Your task to perform on an android device: Open eBay Image 0: 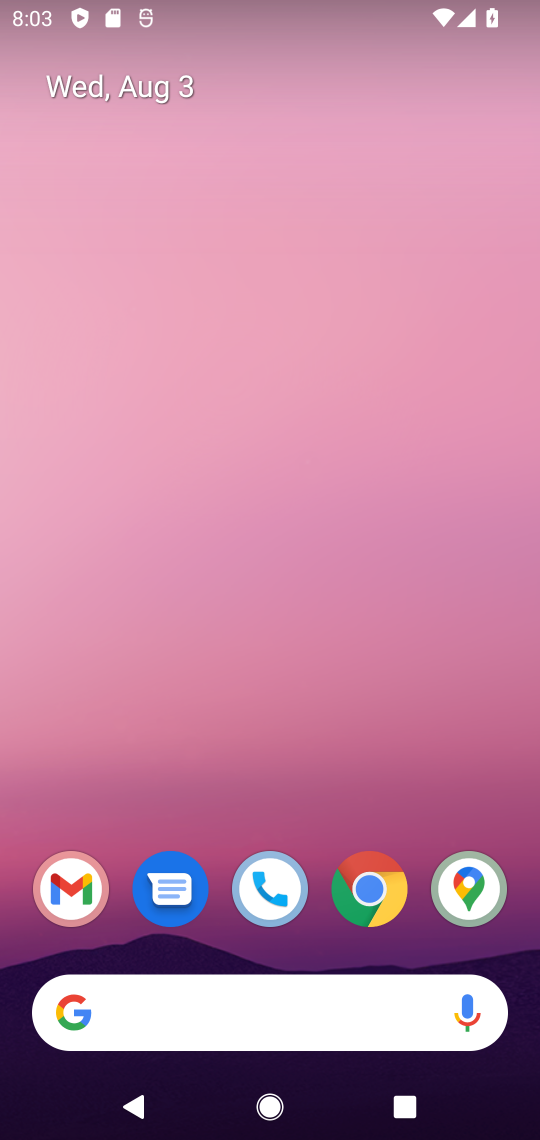
Step 0: click (374, 896)
Your task to perform on an android device: Open eBay Image 1: 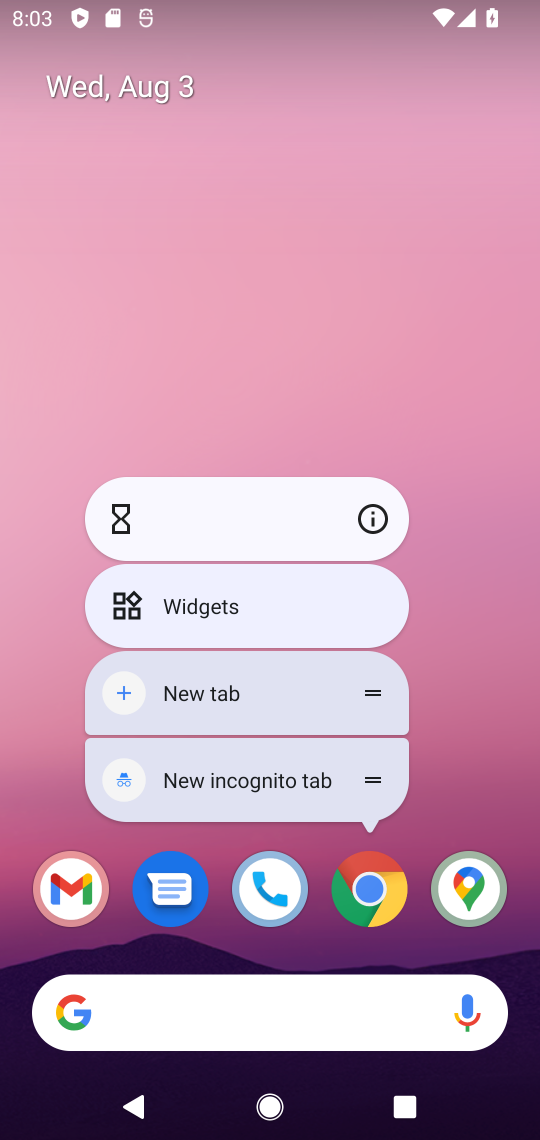
Step 1: click (359, 904)
Your task to perform on an android device: Open eBay Image 2: 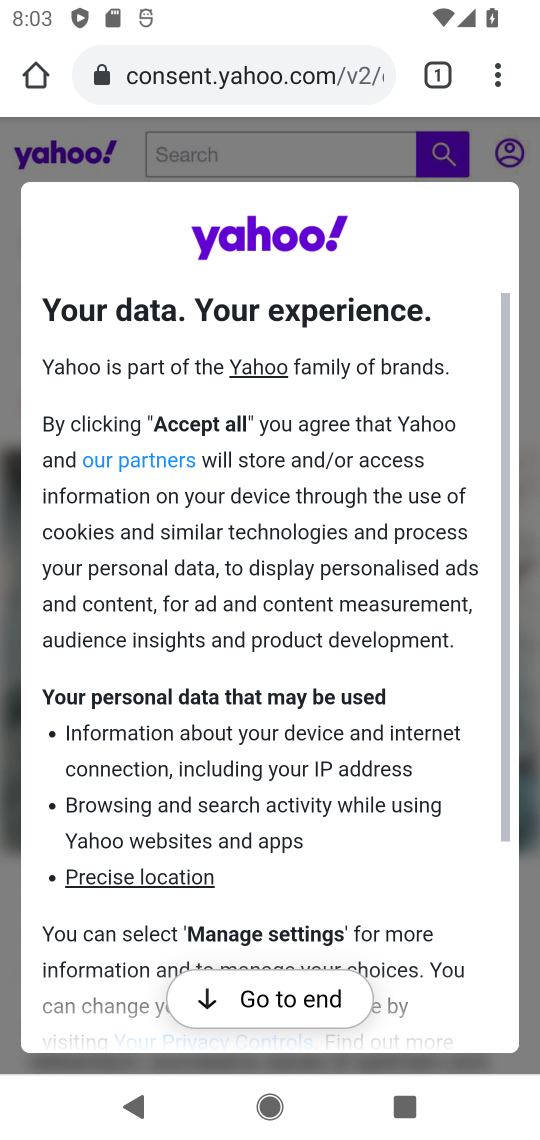
Step 2: click (272, 78)
Your task to perform on an android device: Open eBay Image 3: 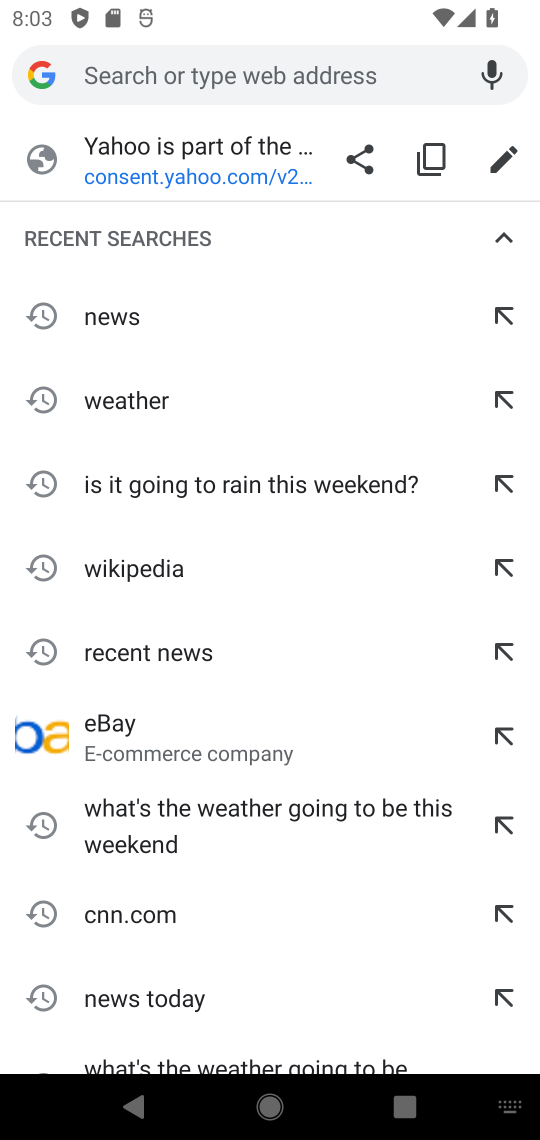
Step 3: type "ebay"
Your task to perform on an android device: Open eBay Image 4: 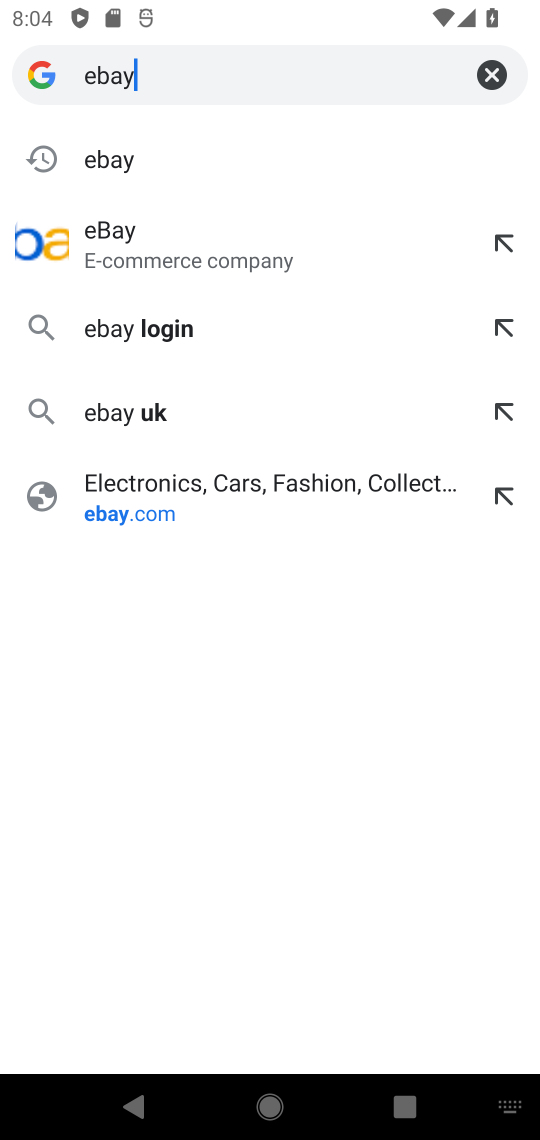
Step 4: click (189, 161)
Your task to perform on an android device: Open eBay Image 5: 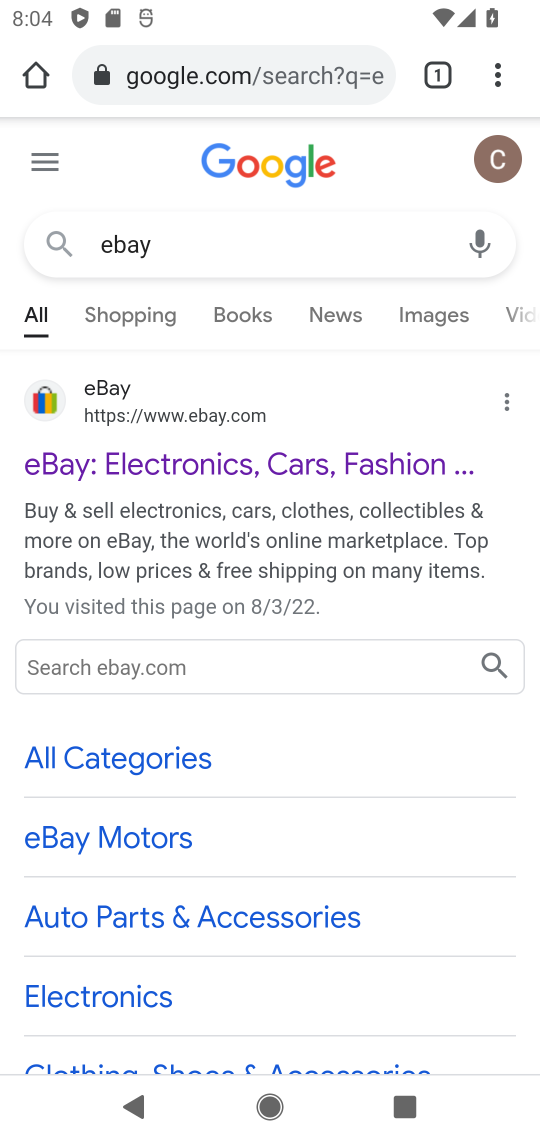
Step 5: click (130, 462)
Your task to perform on an android device: Open eBay Image 6: 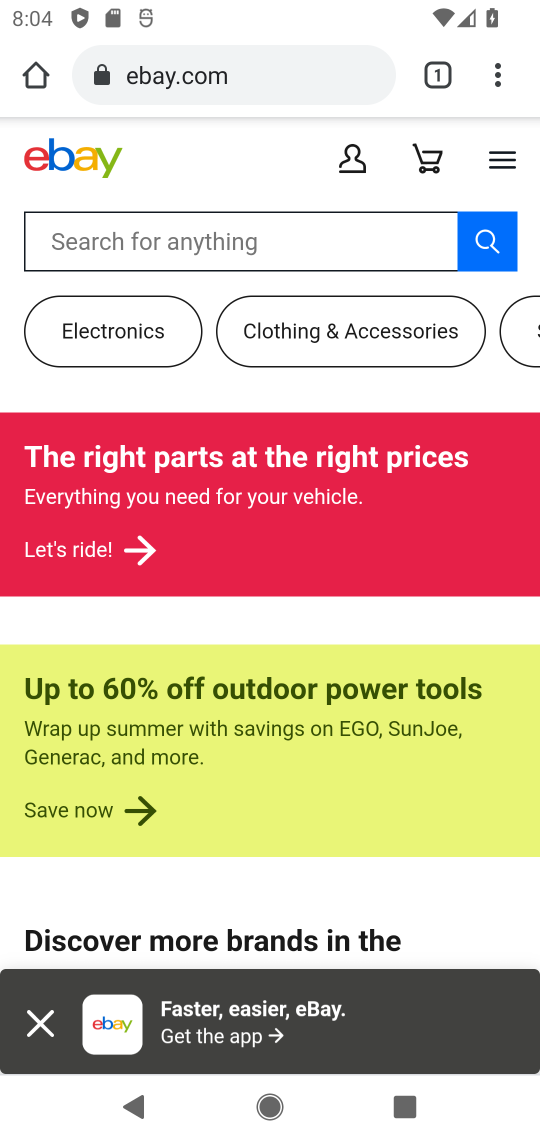
Step 6: task complete